Your task to perform on an android device: Open my contact list Image 0: 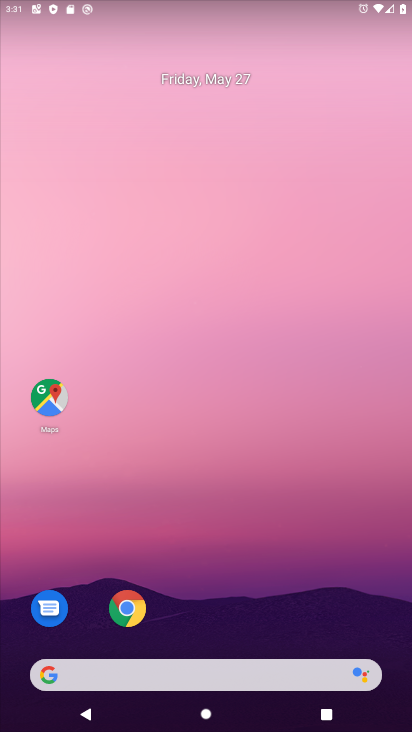
Step 0: drag from (256, 620) to (291, 304)
Your task to perform on an android device: Open my contact list Image 1: 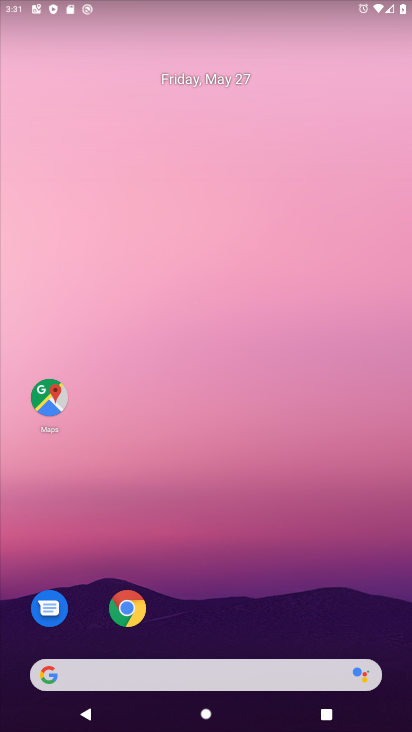
Step 1: drag from (169, 636) to (226, 266)
Your task to perform on an android device: Open my contact list Image 2: 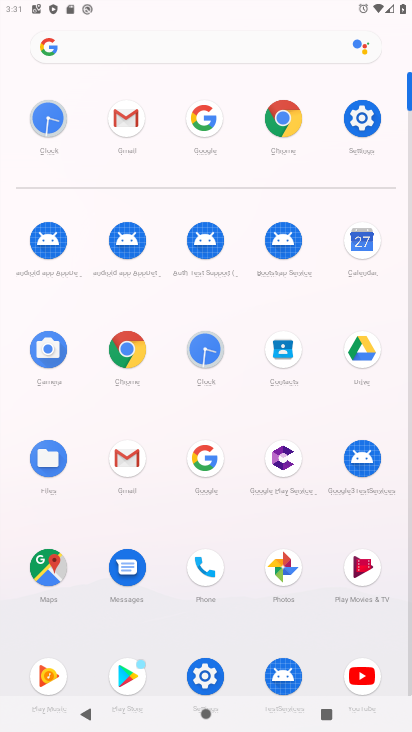
Step 2: click (290, 345)
Your task to perform on an android device: Open my contact list Image 3: 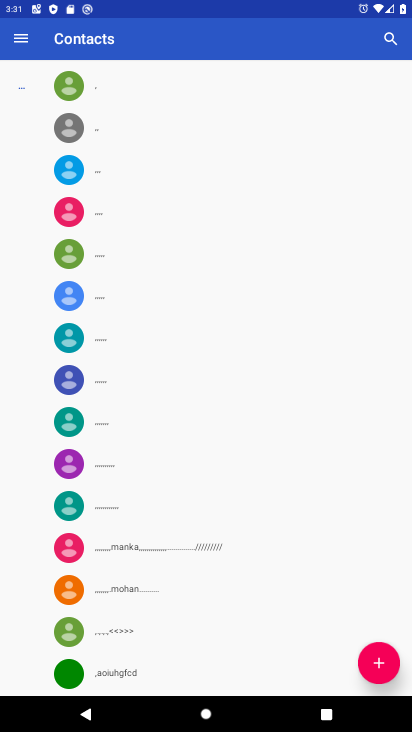
Step 3: task complete